Your task to perform on an android device: Open wifi settings Image 0: 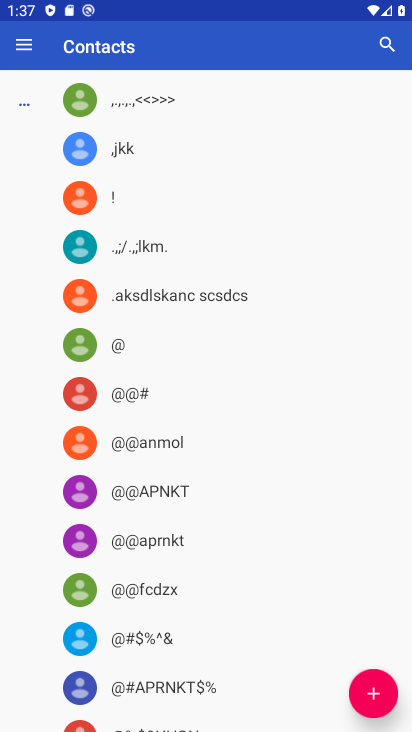
Step 0: press home button
Your task to perform on an android device: Open wifi settings Image 1: 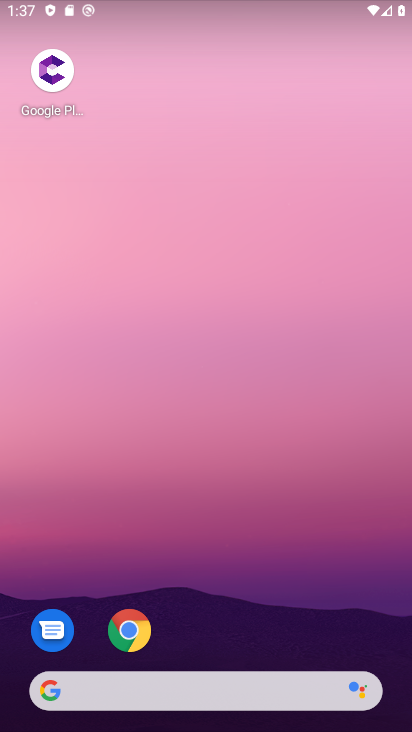
Step 1: drag from (324, 626) to (301, 267)
Your task to perform on an android device: Open wifi settings Image 2: 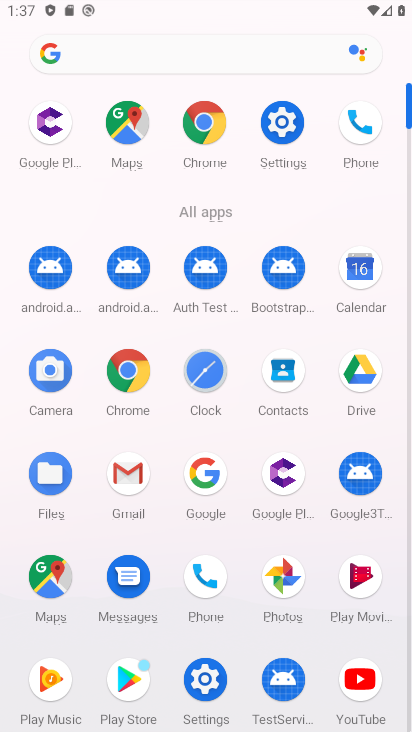
Step 2: click (219, 671)
Your task to perform on an android device: Open wifi settings Image 3: 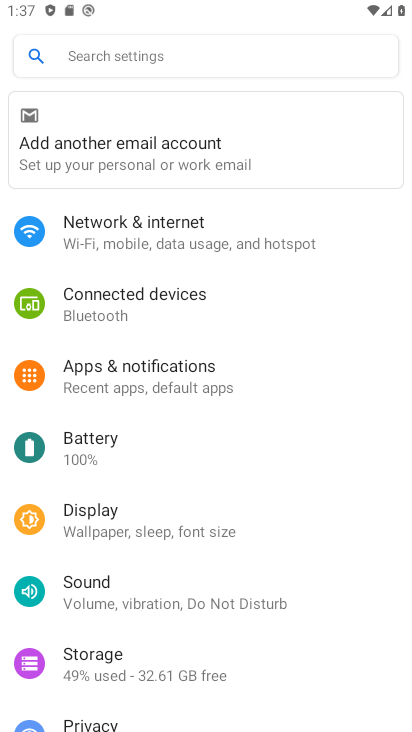
Step 3: click (186, 240)
Your task to perform on an android device: Open wifi settings Image 4: 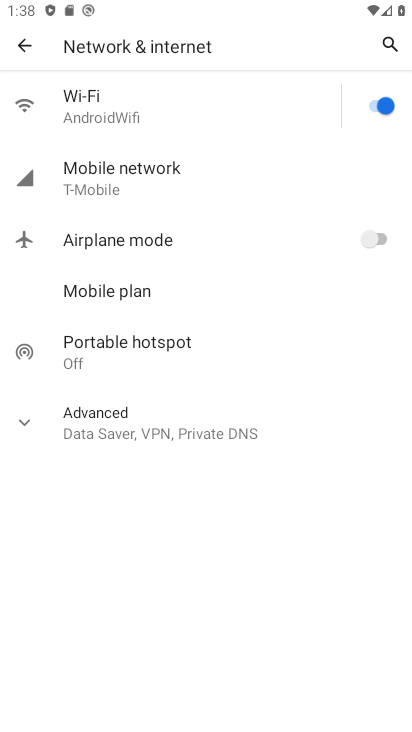
Step 4: click (187, 91)
Your task to perform on an android device: Open wifi settings Image 5: 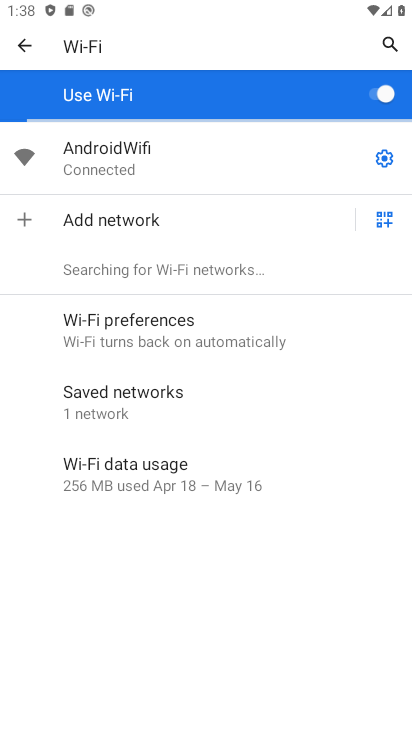
Step 5: click (389, 164)
Your task to perform on an android device: Open wifi settings Image 6: 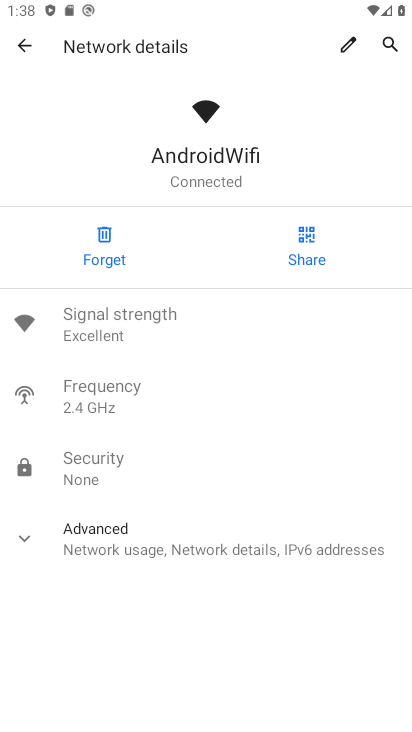
Step 6: task complete